Your task to perform on an android device: Add "amazon basics triple a" to the cart on bestbuy.com, then select checkout. Image 0: 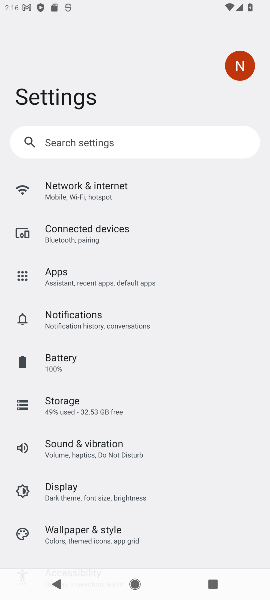
Step 0: press home button
Your task to perform on an android device: Add "amazon basics triple a" to the cart on bestbuy.com, then select checkout. Image 1: 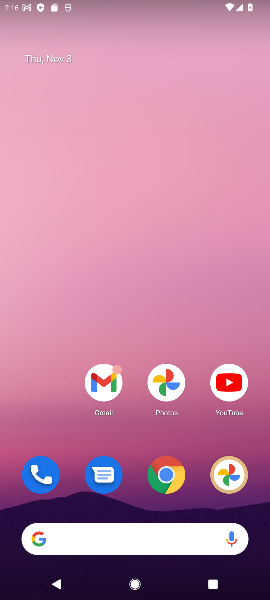
Step 1: click (169, 474)
Your task to perform on an android device: Add "amazon basics triple a" to the cart on bestbuy.com, then select checkout. Image 2: 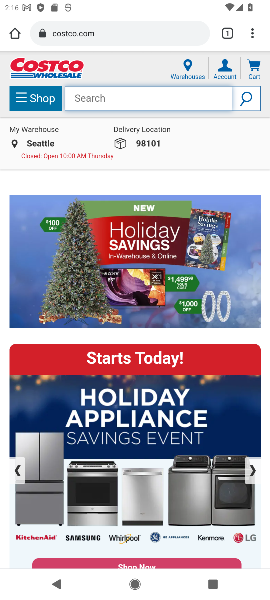
Step 2: click (93, 25)
Your task to perform on an android device: Add "amazon basics triple a" to the cart on bestbuy.com, then select checkout. Image 3: 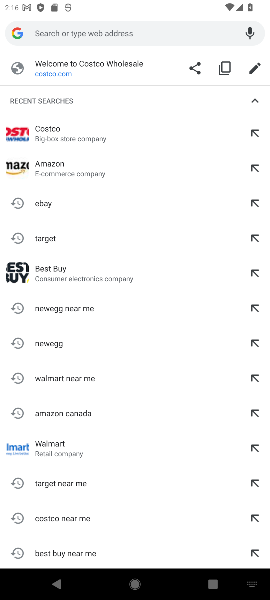
Step 3: type "bestbuy"
Your task to perform on an android device: Add "amazon basics triple a" to the cart on bestbuy.com, then select checkout. Image 4: 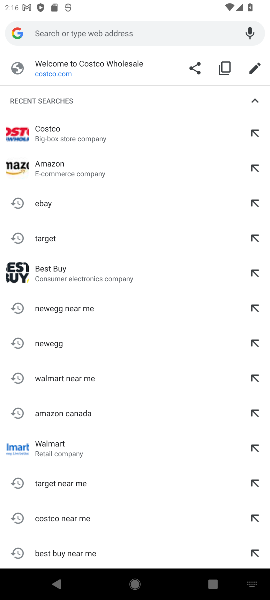
Step 4: click (26, 278)
Your task to perform on an android device: Add "amazon basics triple a" to the cart on bestbuy.com, then select checkout. Image 5: 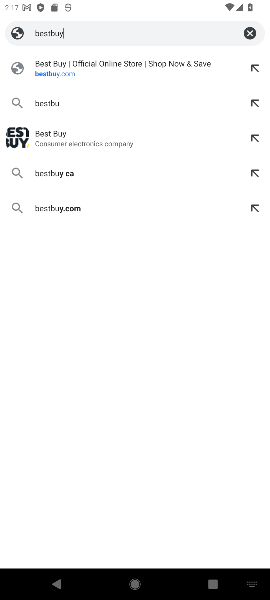
Step 5: click (50, 127)
Your task to perform on an android device: Add "amazon basics triple a" to the cart on bestbuy.com, then select checkout. Image 6: 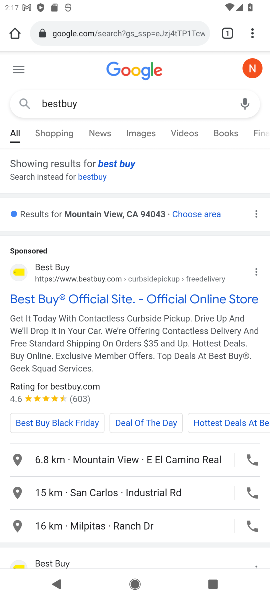
Step 6: drag from (157, 430) to (176, 128)
Your task to perform on an android device: Add "amazon basics triple a" to the cart on bestbuy.com, then select checkout. Image 7: 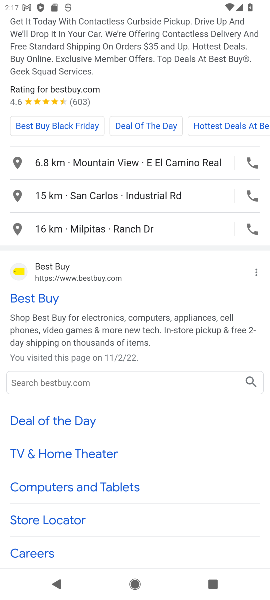
Step 7: click (54, 299)
Your task to perform on an android device: Add "amazon basics triple a" to the cart on bestbuy.com, then select checkout. Image 8: 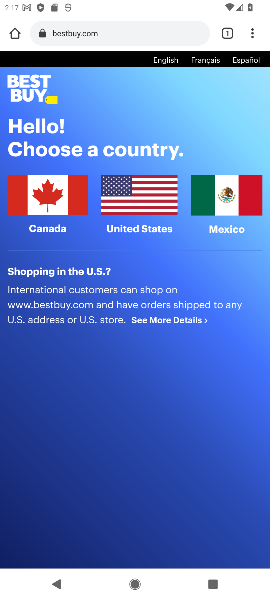
Step 8: click (38, 205)
Your task to perform on an android device: Add "amazon basics triple a" to the cart on bestbuy.com, then select checkout. Image 9: 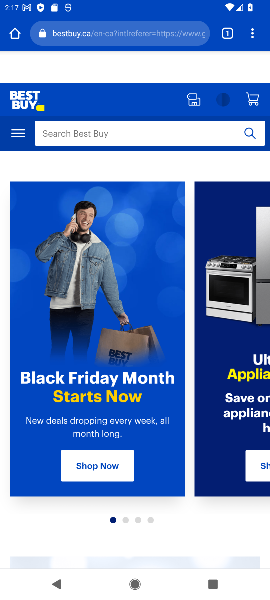
Step 9: click (65, 133)
Your task to perform on an android device: Add "amazon basics triple a" to the cart on bestbuy.com, then select checkout. Image 10: 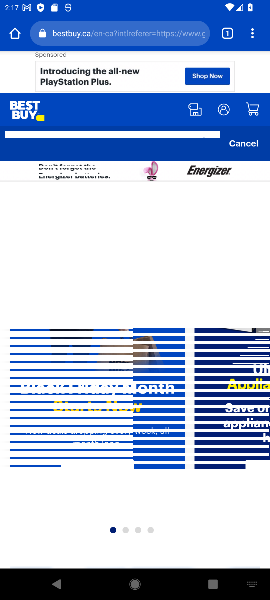
Step 10: type "amazon basic triple"
Your task to perform on an android device: Add "amazon basics triple a" to the cart on bestbuy.com, then select checkout. Image 11: 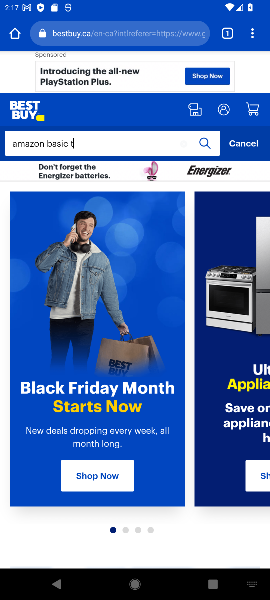
Step 11: type ""
Your task to perform on an android device: Add "amazon basics triple a" to the cart on bestbuy.com, then select checkout. Image 12: 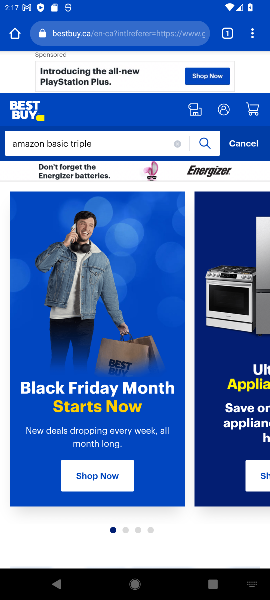
Step 12: click (205, 143)
Your task to perform on an android device: Add "amazon basics triple a" to the cart on bestbuy.com, then select checkout. Image 13: 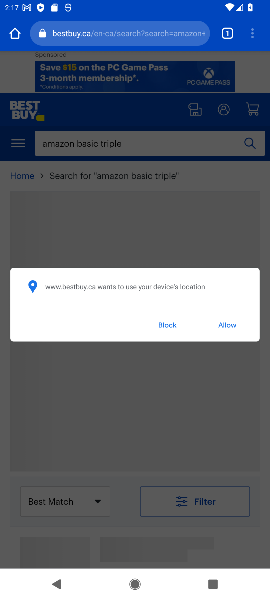
Step 13: click (222, 326)
Your task to perform on an android device: Add "amazon basics triple a" to the cart on bestbuy.com, then select checkout. Image 14: 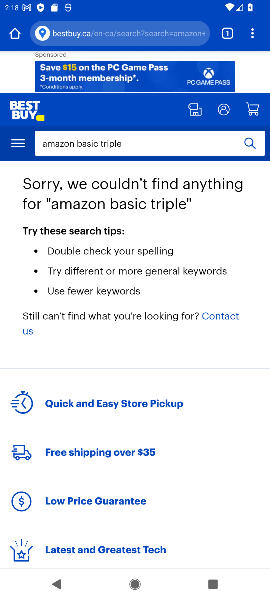
Step 14: drag from (135, 365) to (135, 413)
Your task to perform on an android device: Add "amazon basics triple a" to the cart on bestbuy.com, then select checkout. Image 15: 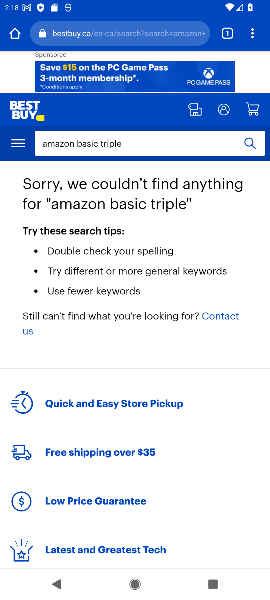
Step 15: click (246, 143)
Your task to perform on an android device: Add "amazon basics triple a" to the cart on bestbuy.com, then select checkout. Image 16: 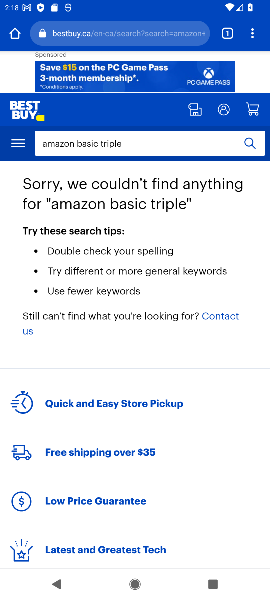
Step 16: click (136, 141)
Your task to perform on an android device: Add "amazon basics triple a" to the cart on bestbuy.com, then select checkout. Image 17: 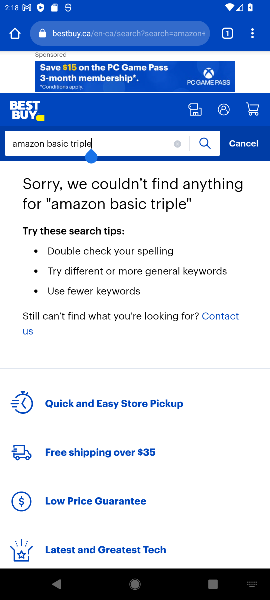
Step 17: click (200, 144)
Your task to perform on an android device: Add "amazon basics triple a" to the cart on bestbuy.com, then select checkout. Image 18: 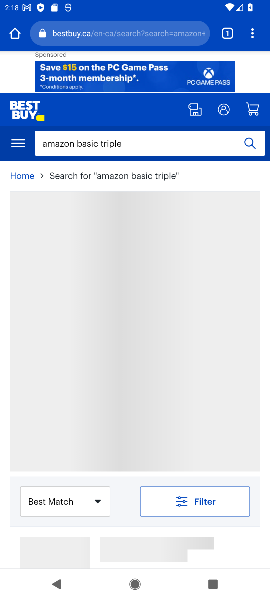
Step 18: click (129, 144)
Your task to perform on an android device: Add "amazon basics triple a" to the cart on bestbuy.com, then select checkout. Image 19: 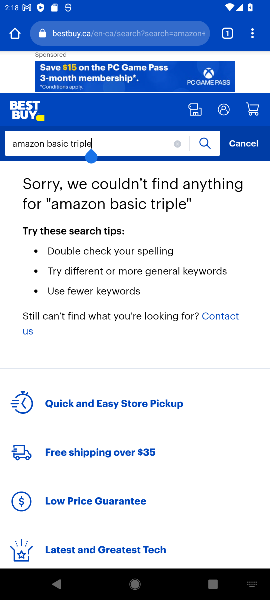
Step 19: click (177, 139)
Your task to perform on an android device: Add "amazon basics triple a" to the cart on bestbuy.com, then select checkout. Image 20: 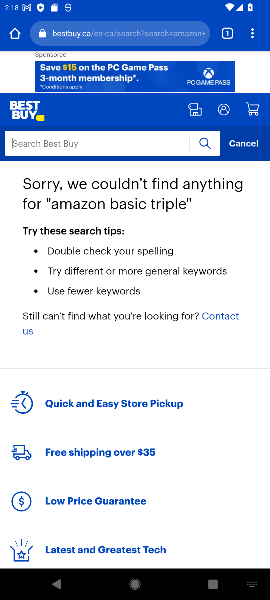
Step 20: click (175, 145)
Your task to perform on an android device: Add "amazon basics triple a" to the cart on bestbuy.com, then select checkout. Image 21: 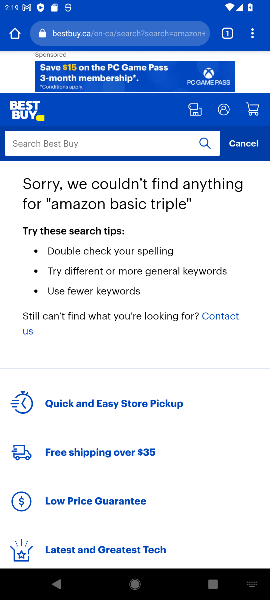
Step 21: type "basic triple a"
Your task to perform on an android device: Add "amazon basics triple a" to the cart on bestbuy.com, then select checkout. Image 22: 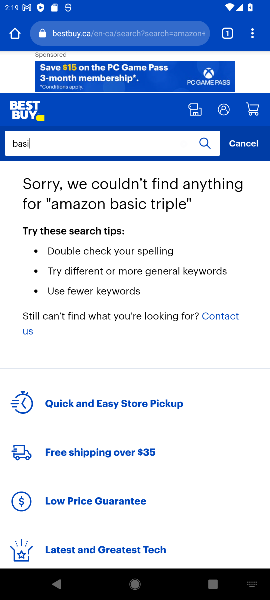
Step 22: type ""
Your task to perform on an android device: Add "amazon basics triple a" to the cart on bestbuy.com, then select checkout. Image 23: 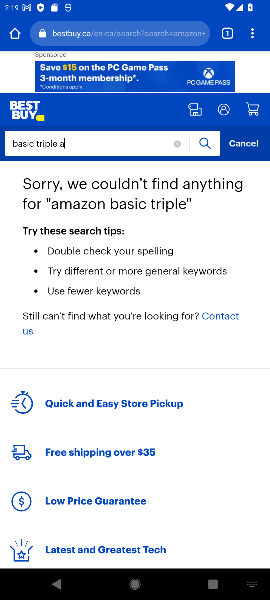
Step 23: click (201, 143)
Your task to perform on an android device: Add "amazon basics triple a" to the cart on bestbuy.com, then select checkout. Image 24: 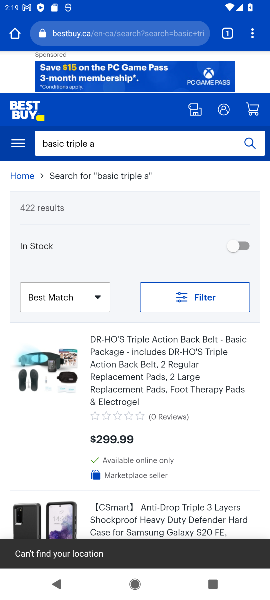
Step 24: drag from (143, 503) to (156, 431)
Your task to perform on an android device: Add "amazon basics triple a" to the cart on bestbuy.com, then select checkout. Image 25: 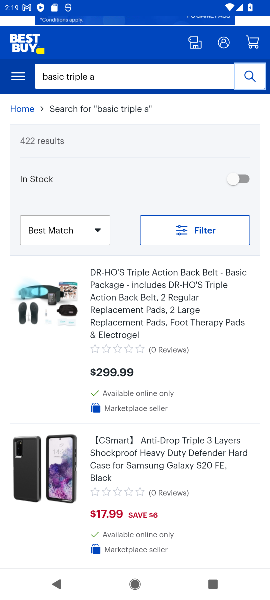
Step 25: click (61, 280)
Your task to perform on an android device: Add "amazon basics triple a" to the cart on bestbuy.com, then select checkout. Image 26: 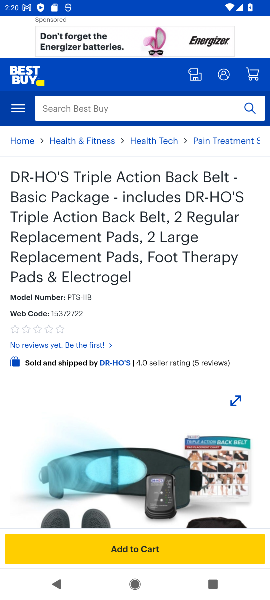
Step 26: click (130, 551)
Your task to perform on an android device: Add "amazon basics triple a" to the cart on bestbuy.com, then select checkout. Image 27: 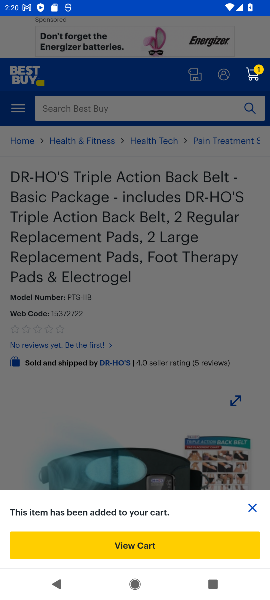
Step 27: click (122, 549)
Your task to perform on an android device: Add "amazon basics triple a" to the cart on bestbuy.com, then select checkout. Image 28: 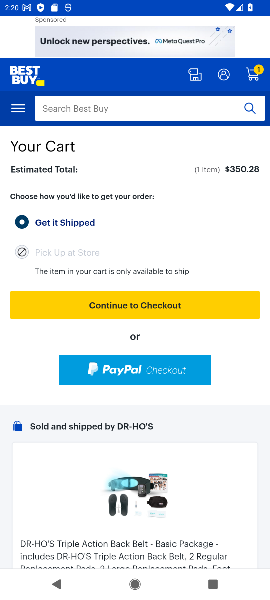
Step 28: click (124, 309)
Your task to perform on an android device: Add "amazon basics triple a" to the cart on bestbuy.com, then select checkout. Image 29: 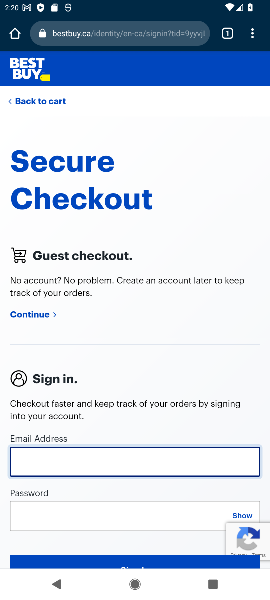
Step 29: task complete